Your task to perform on an android device: turn pop-ups off in chrome Image 0: 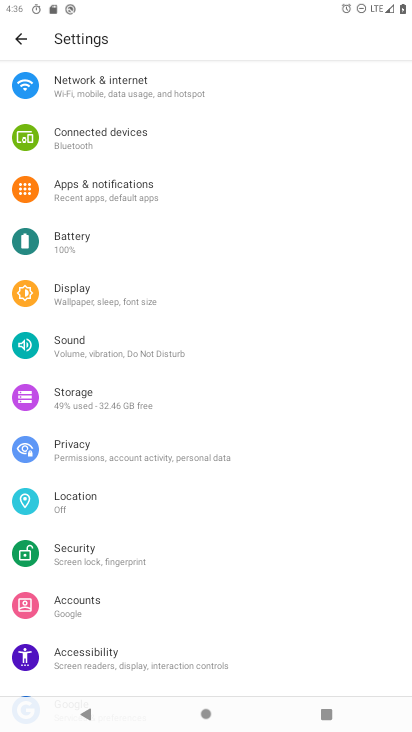
Step 0: press home button
Your task to perform on an android device: turn pop-ups off in chrome Image 1: 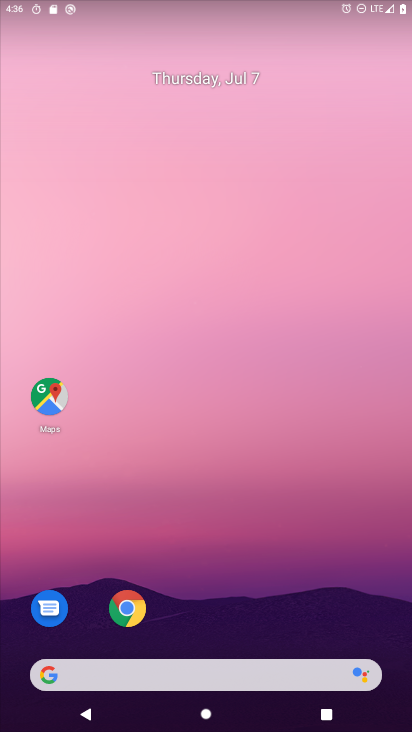
Step 1: click (125, 605)
Your task to perform on an android device: turn pop-ups off in chrome Image 2: 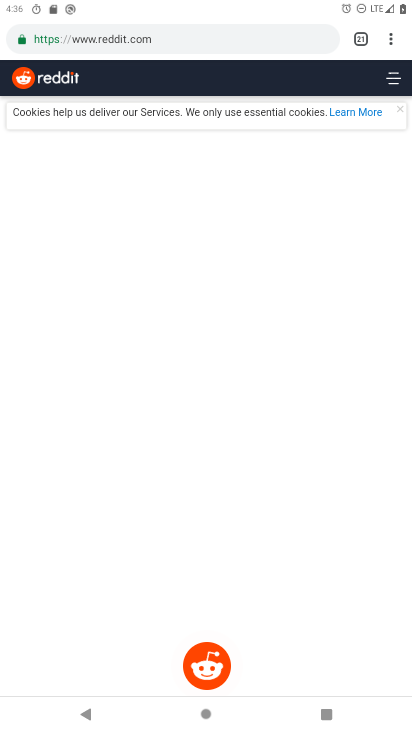
Step 2: click (392, 43)
Your task to perform on an android device: turn pop-ups off in chrome Image 3: 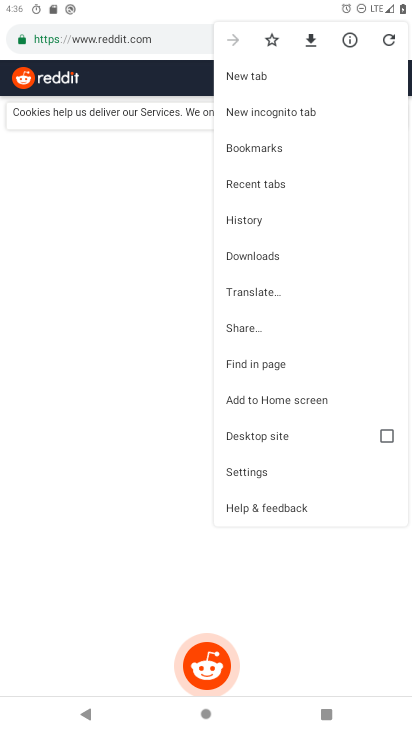
Step 3: click (240, 472)
Your task to perform on an android device: turn pop-ups off in chrome Image 4: 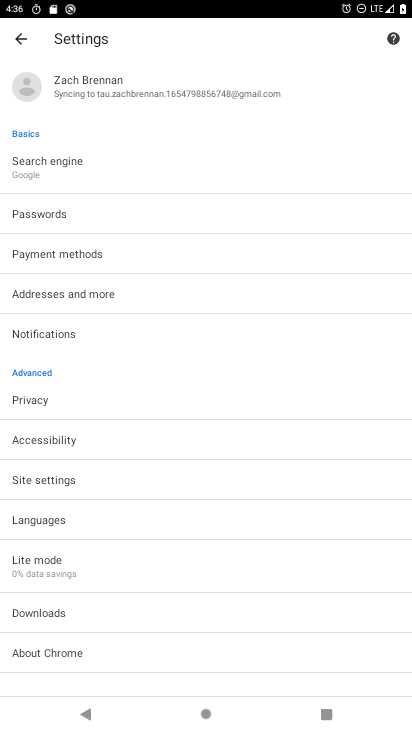
Step 4: click (32, 482)
Your task to perform on an android device: turn pop-ups off in chrome Image 5: 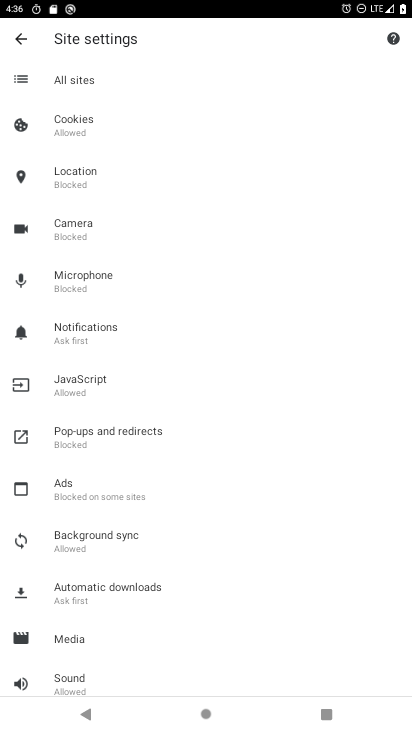
Step 5: click (77, 433)
Your task to perform on an android device: turn pop-ups off in chrome Image 6: 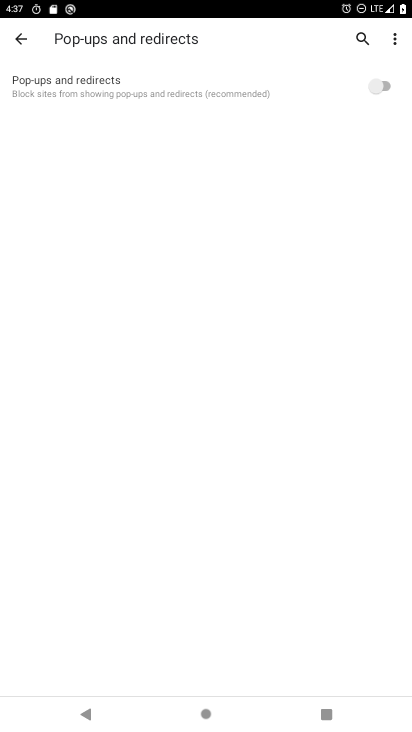
Step 6: task complete